Your task to perform on an android device: turn on data saver in the chrome app Image 0: 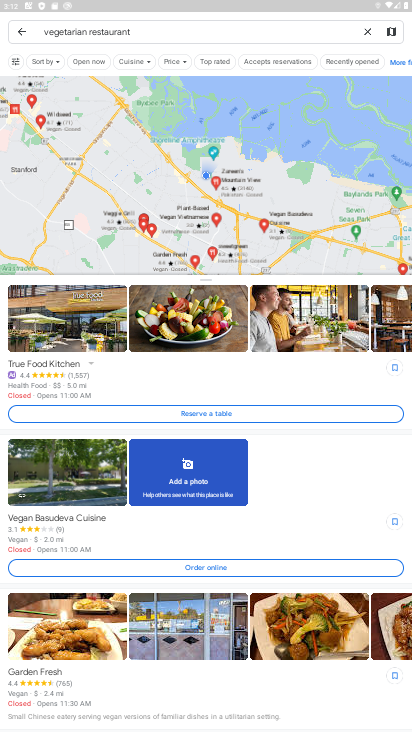
Step 0: press home button
Your task to perform on an android device: turn on data saver in the chrome app Image 1: 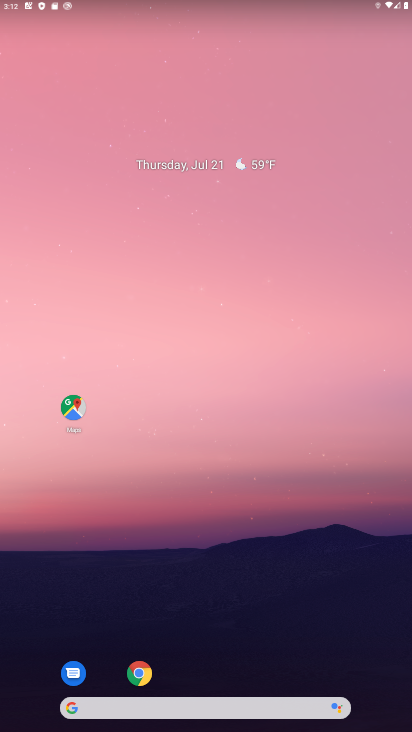
Step 1: drag from (279, 623) to (227, 100)
Your task to perform on an android device: turn on data saver in the chrome app Image 2: 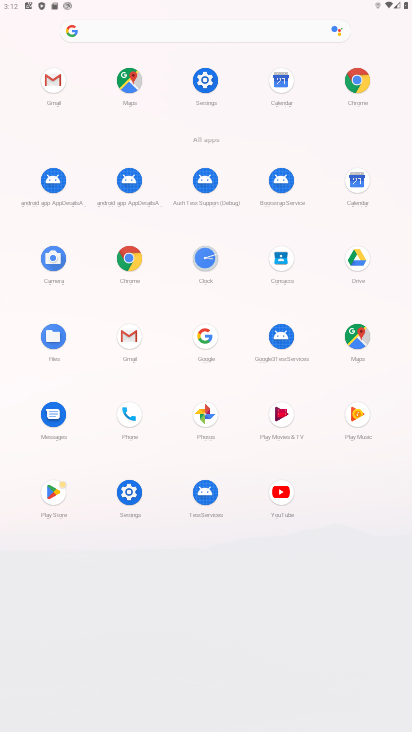
Step 2: click (363, 84)
Your task to perform on an android device: turn on data saver in the chrome app Image 3: 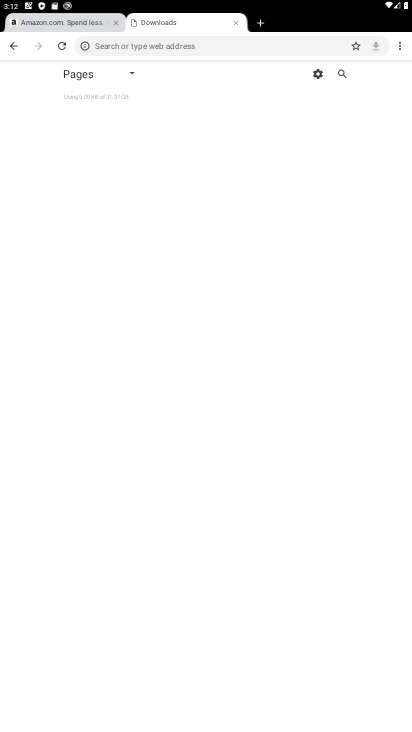
Step 3: click (398, 46)
Your task to perform on an android device: turn on data saver in the chrome app Image 4: 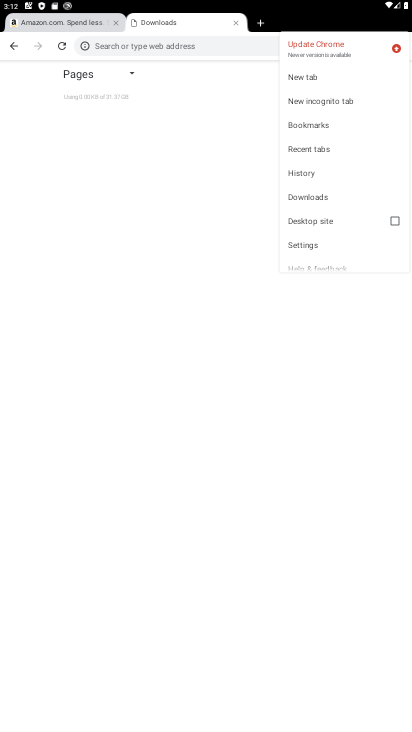
Step 4: click (336, 241)
Your task to perform on an android device: turn on data saver in the chrome app Image 5: 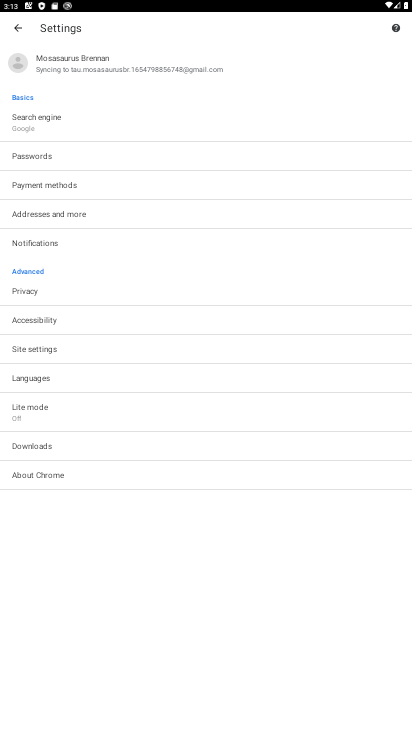
Step 5: click (81, 404)
Your task to perform on an android device: turn on data saver in the chrome app Image 6: 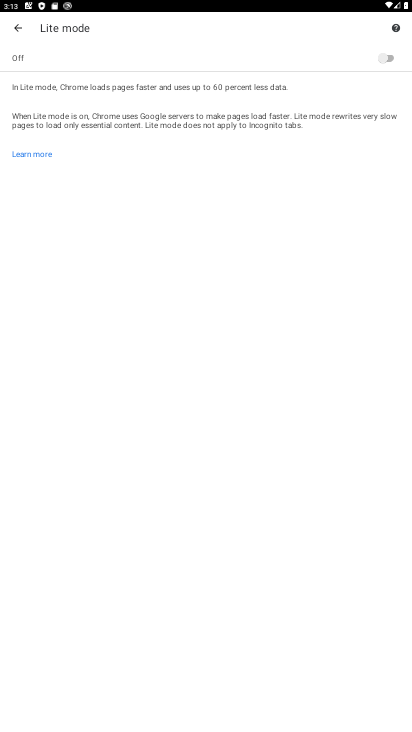
Step 6: click (383, 54)
Your task to perform on an android device: turn on data saver in the chrome app Image 7: 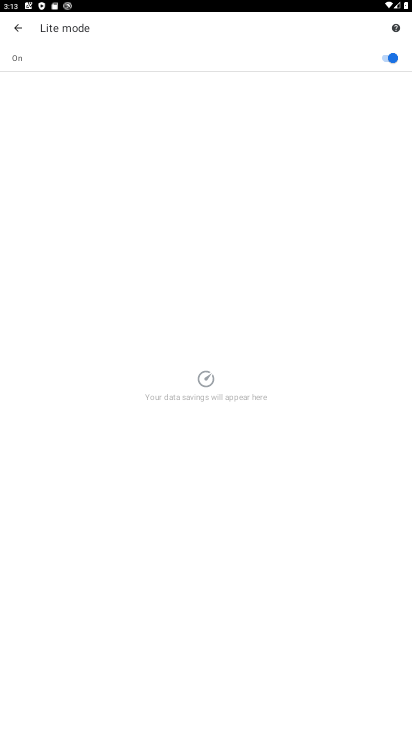
Step 7: task complete